Your task to perform on an android device: Who is the president of France? Image 0: 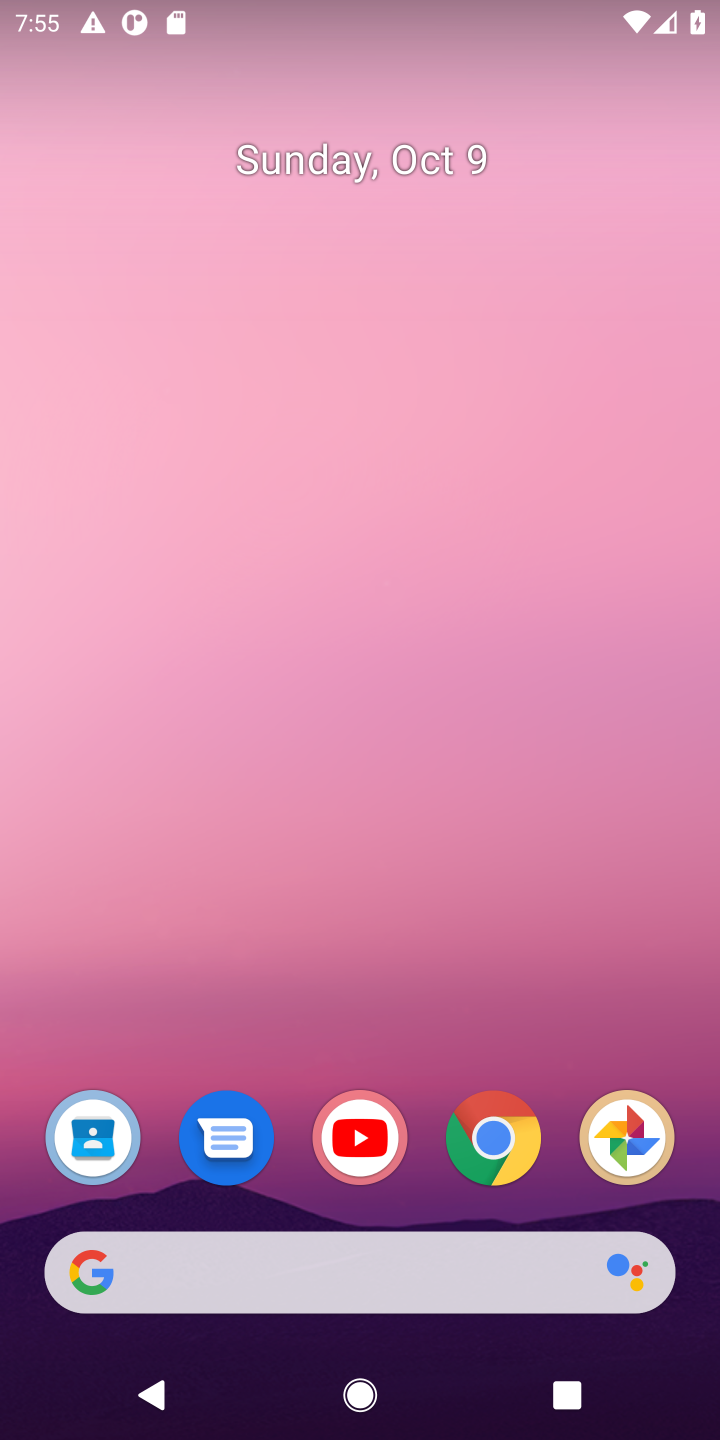
Step 0: drag from (287, 1213) to (356, 330)
Your task to perform on an android device: Who is the president of France? Image 1: 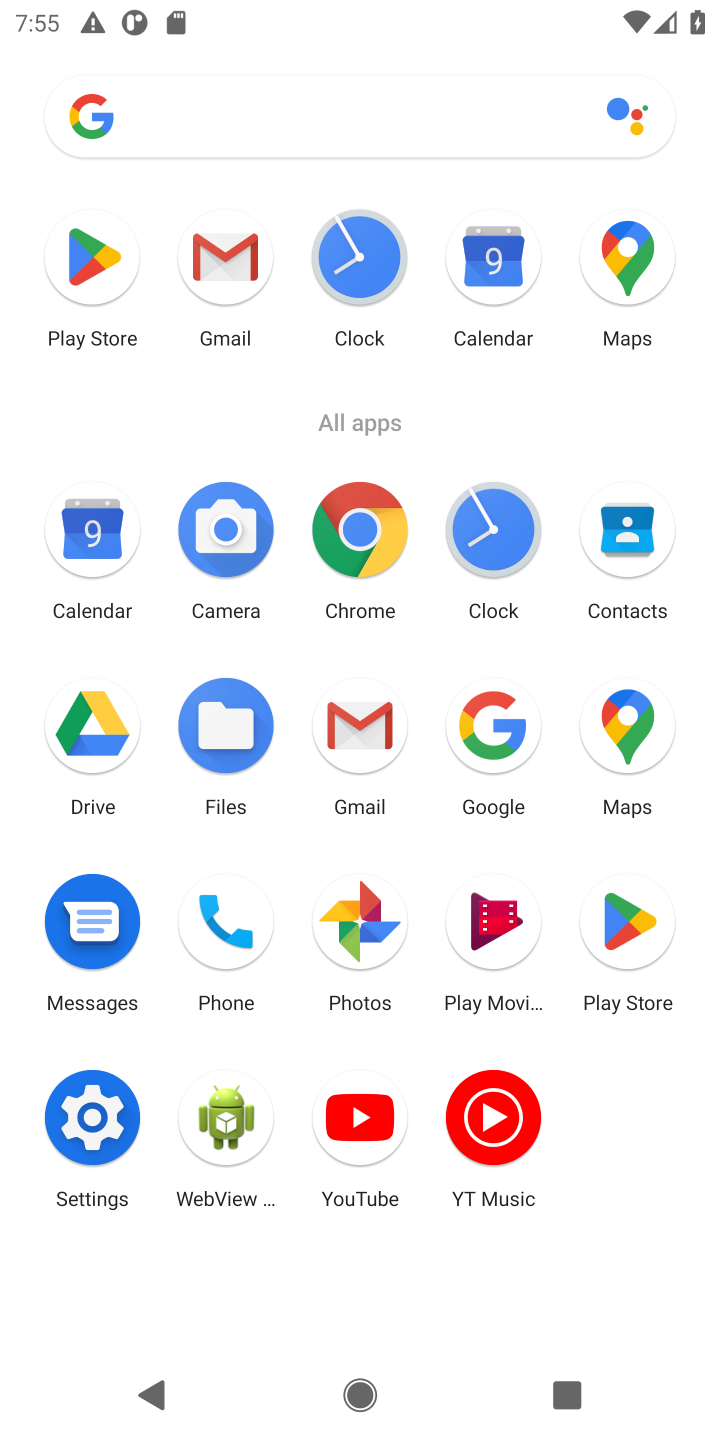
Step 1: click (478, 726)
Your task to perform on an android device: Who is the president of France? Image 2: 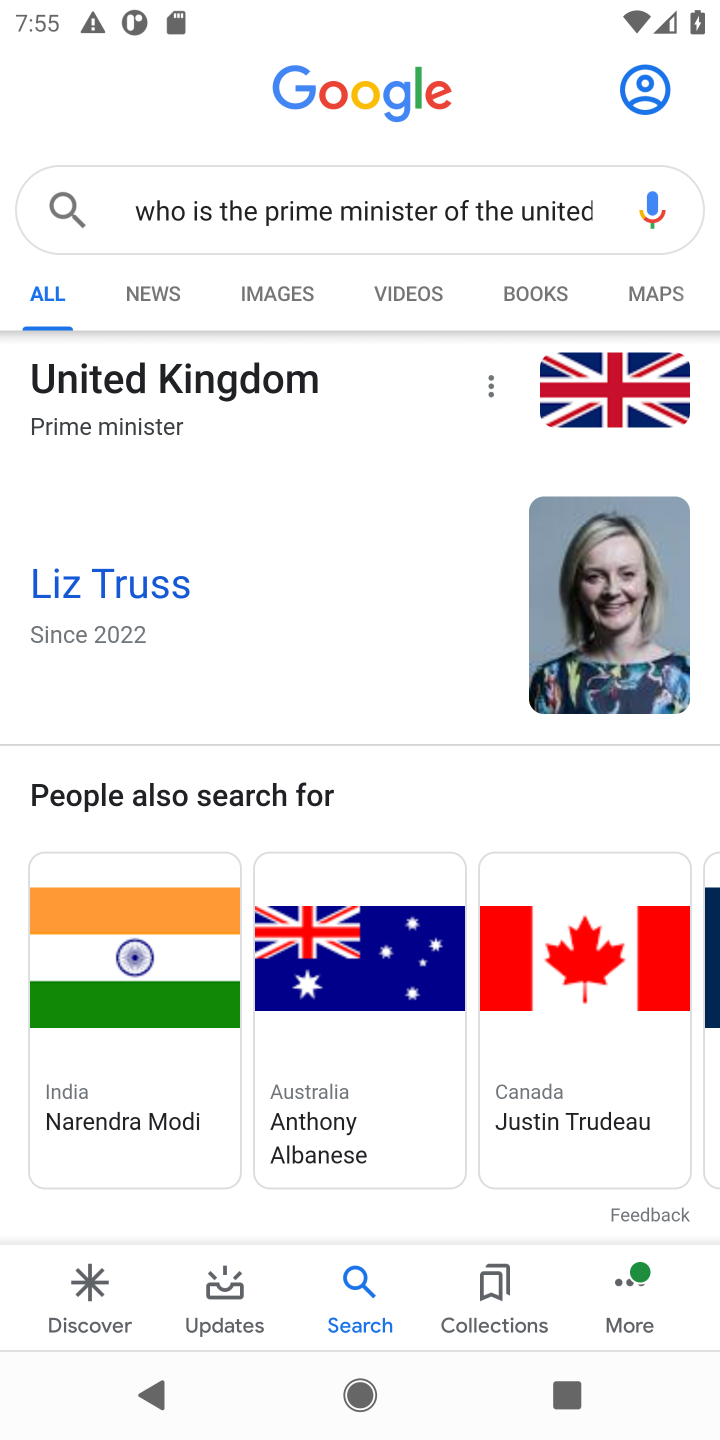
Step 2: click (516, 189)
Your task to perform on an android device: Who is the president of France? Image 3: 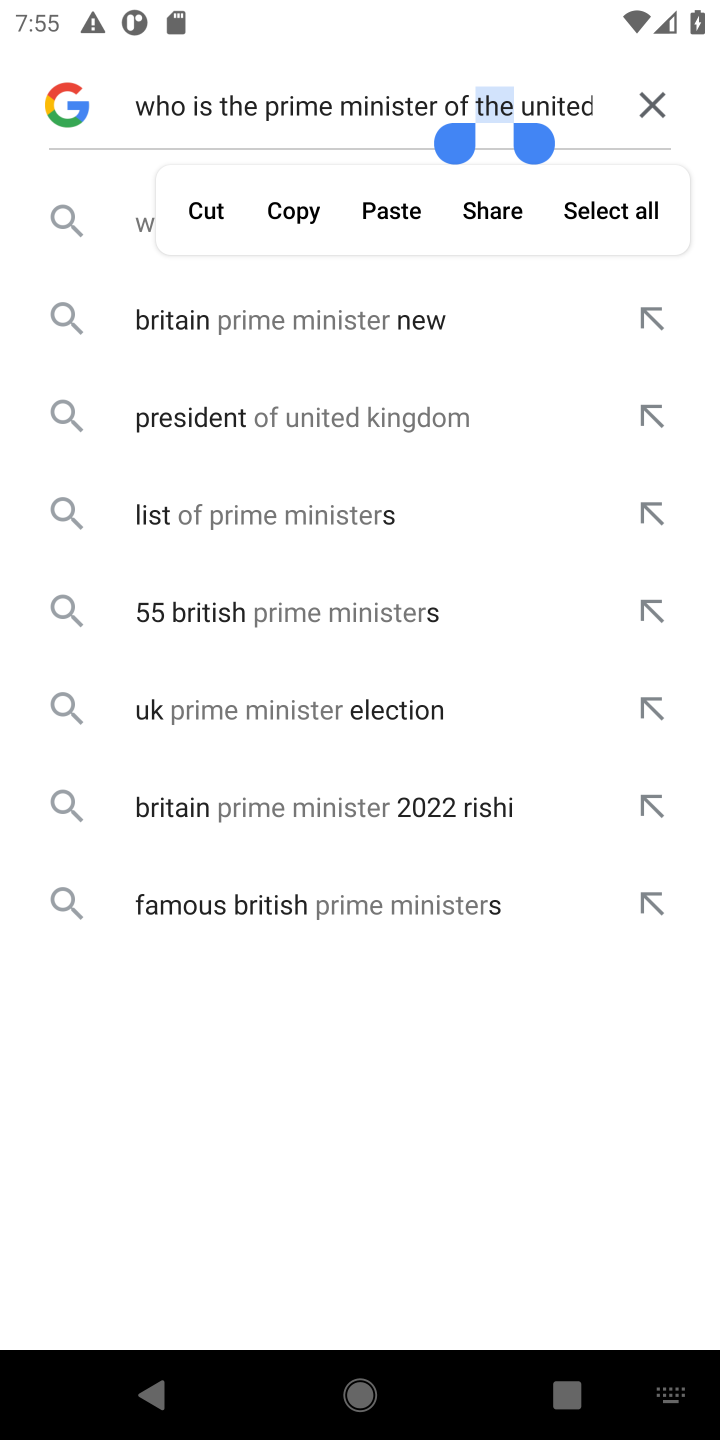
Step 3: click (649, 93)
Your task to perform on an android device: Who is the president of France? Image 4: 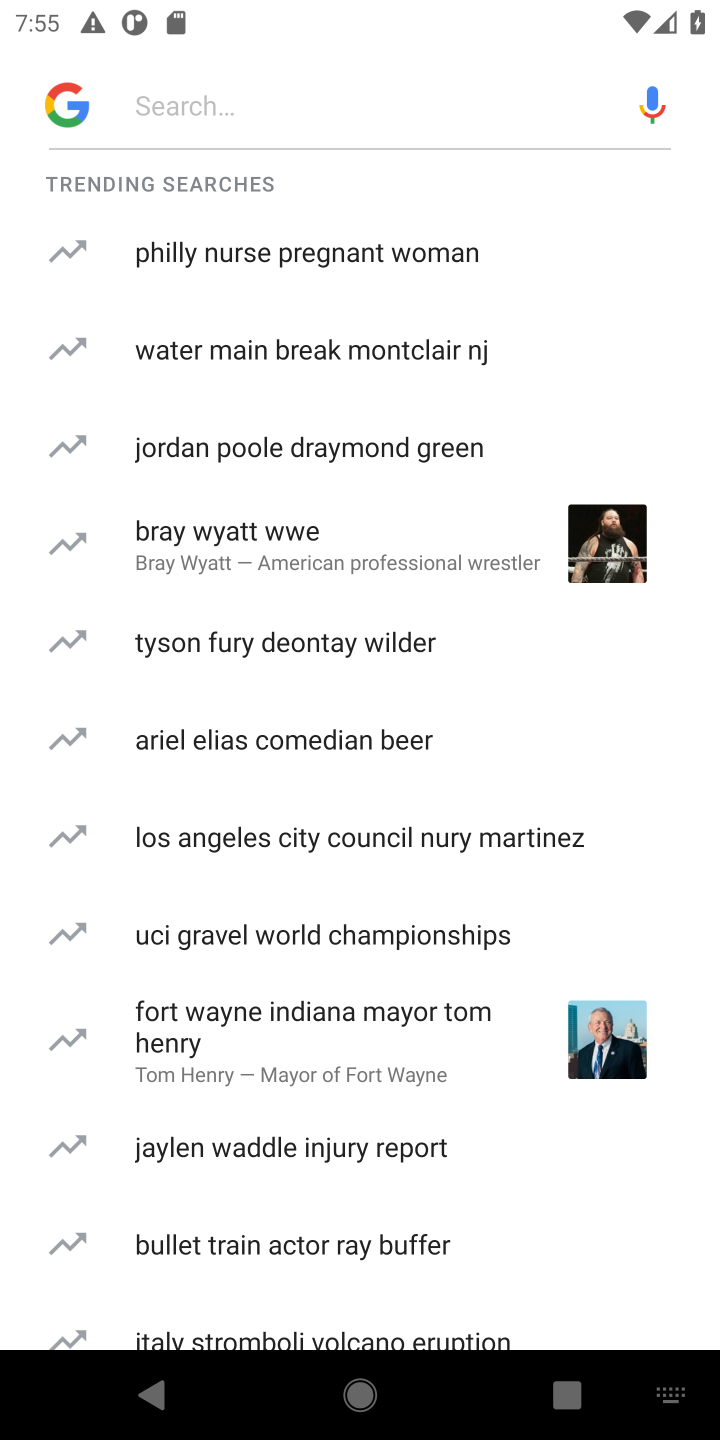
Step 4: click (300, 119)
Your task to perform on an android device: Who is the president of France? Image 5: 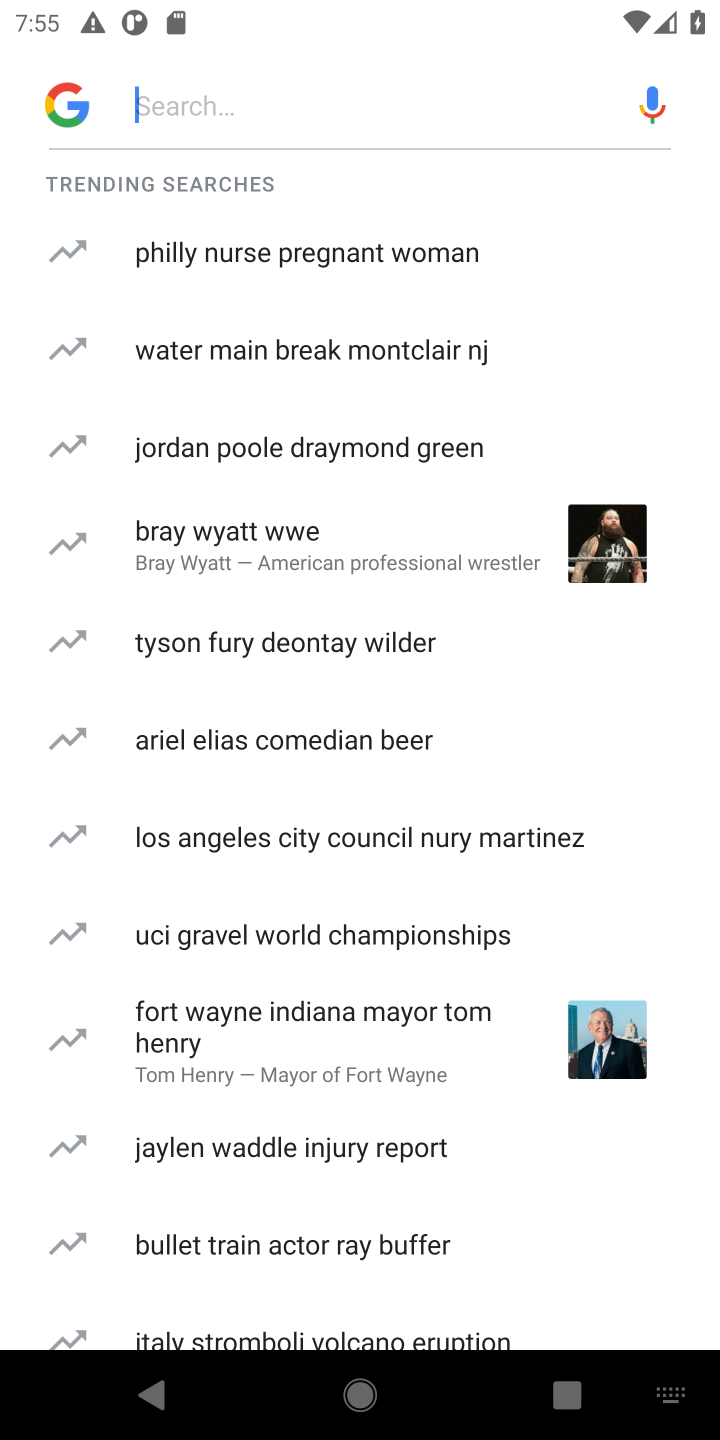
Step 5: click (300, 109)
Your task to perform on an android device: Who is the president of France? Image 6: 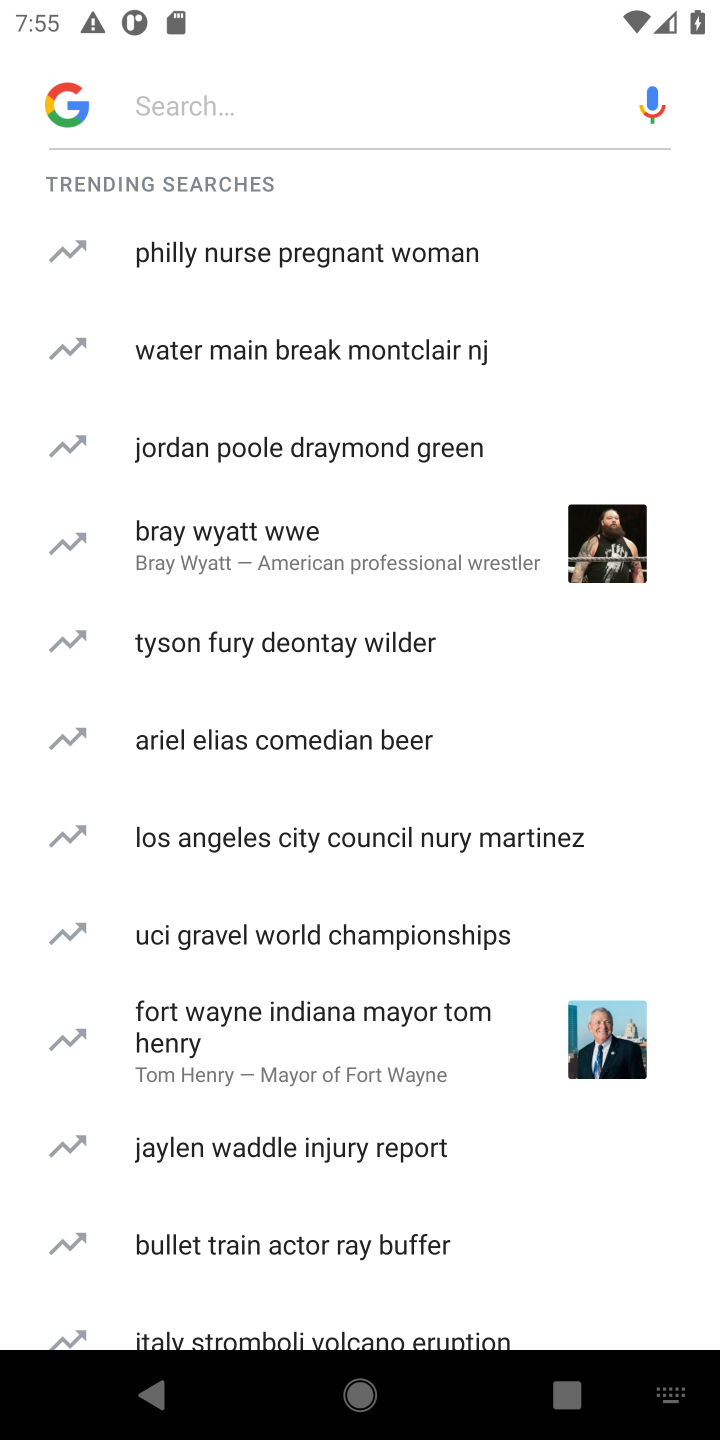
Step 6: type "Who is the president of France? "
Your task to perform on an android device: Who is the president of France? Image 7: 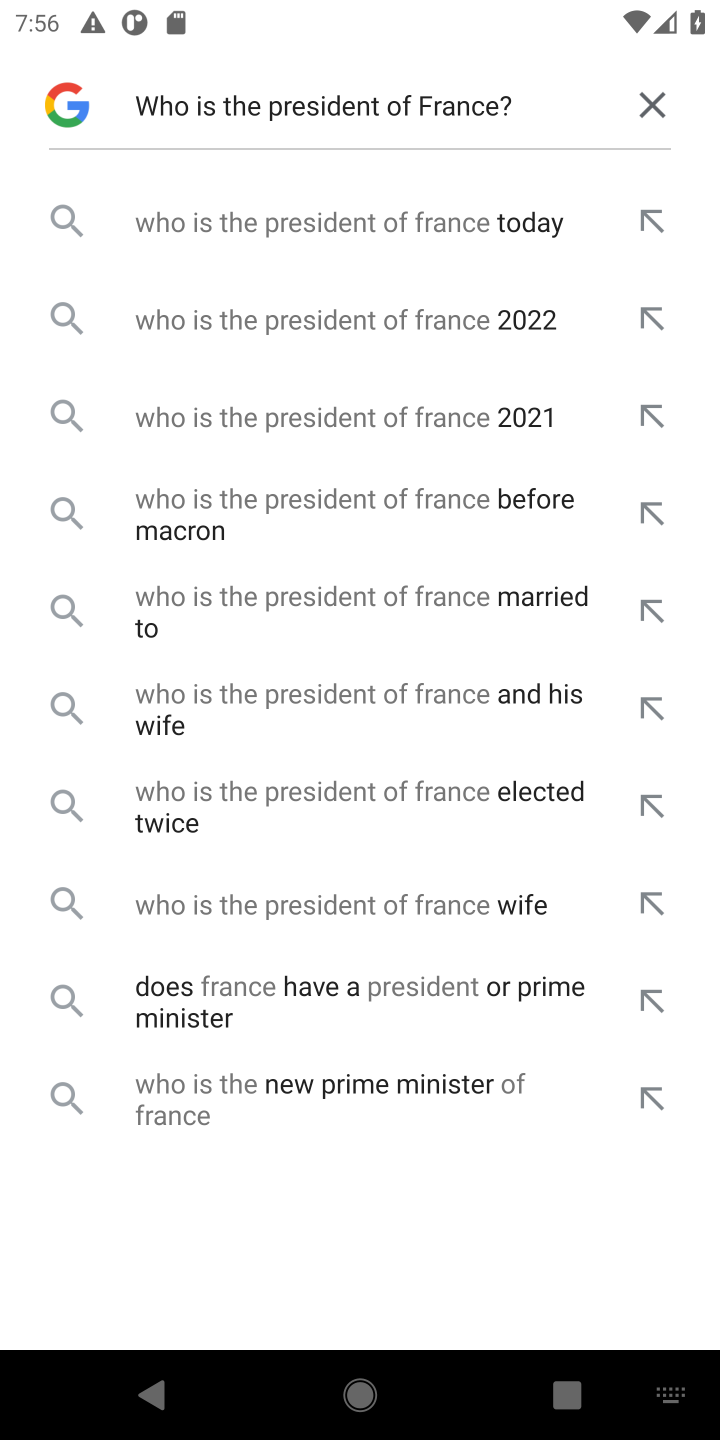
Step 7: click (454, 207)
Your task to perform on an android device: Who is the president of France? Image 8: 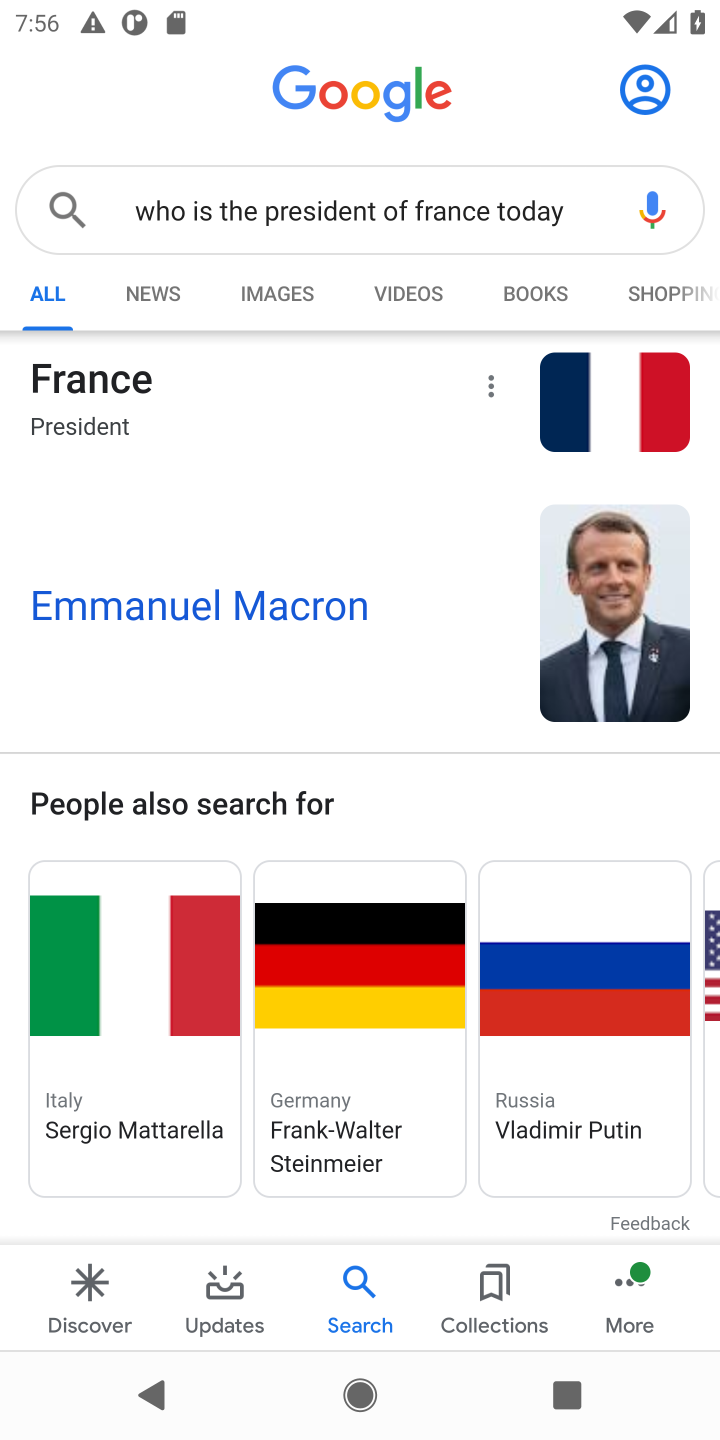
Step 8: task complete